Your task to perform on an android device: create a new album in the google photos Image 0: 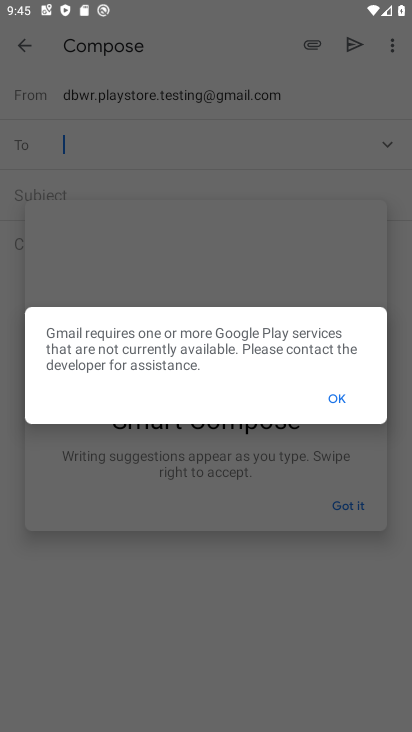
Step 0: press home button
Your task to perform on an android device: create a new album in the google photos Image 1: 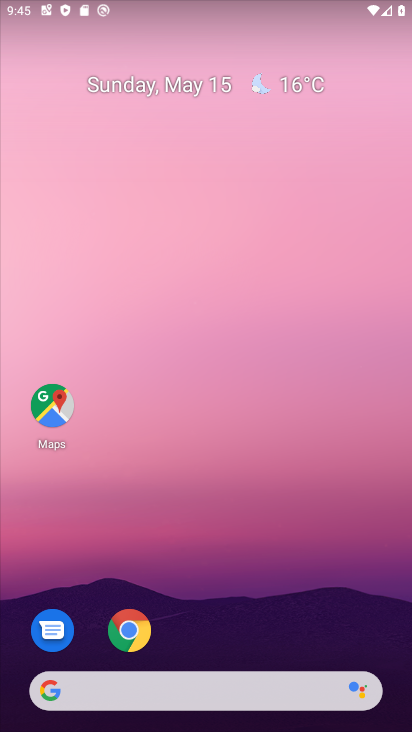
Step 1: drag from (234, 624) to (231, 172)
Your task to perform on an android device: create a new album in the google photos Image 2: 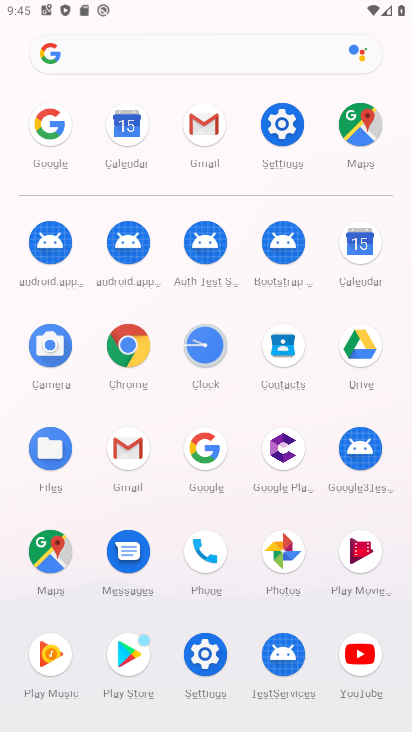
Step 2: click (279, 561)
Your task to perform on an android device: create a new album in the google photos Image 3: 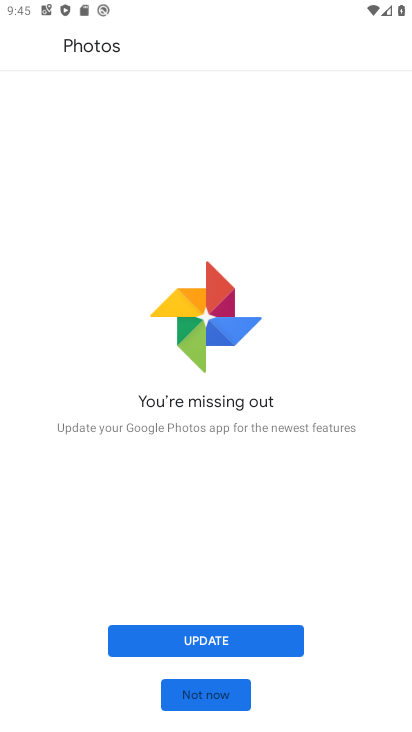
Step 3: click (217, 684)
Your task to perform on an android device: create a new album in the google photos Image 4: 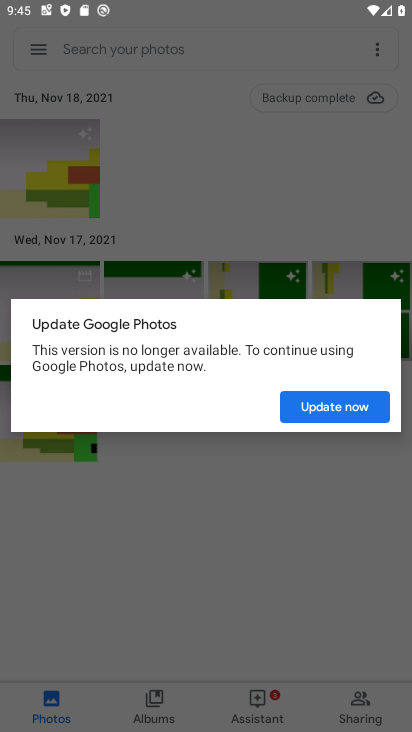
Step 4: click (297, 409)
Your task to perform on an android device: create a new album in the google photos Image 5: 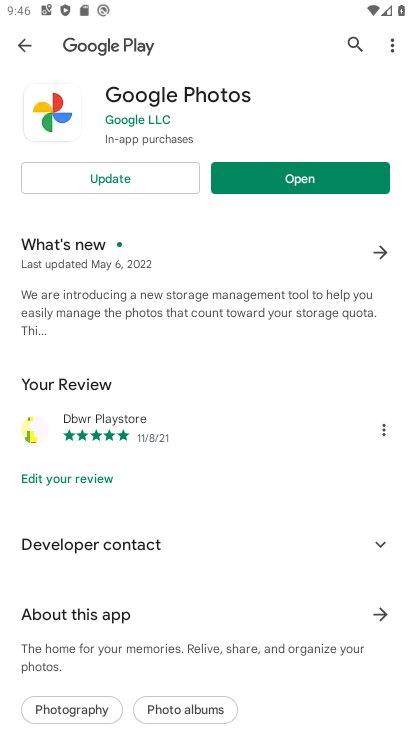
Step 5: click (306, 172)
Your task to perform on an android device: create a new album in the google photos Image 6: 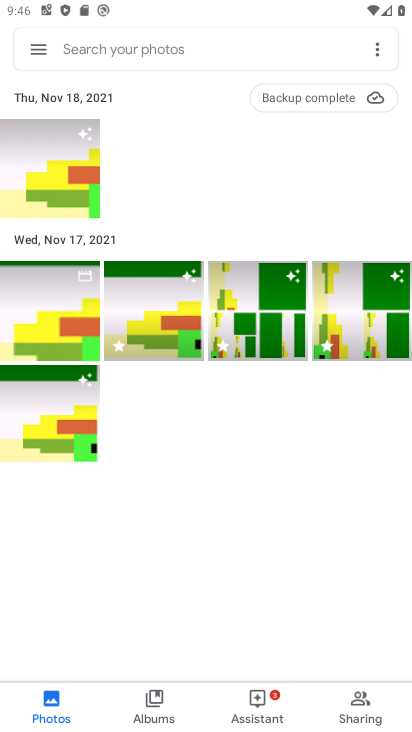
Step 6: click (374, 45)
Your task to perform on an android device: create a new album in the google photos Image 7: 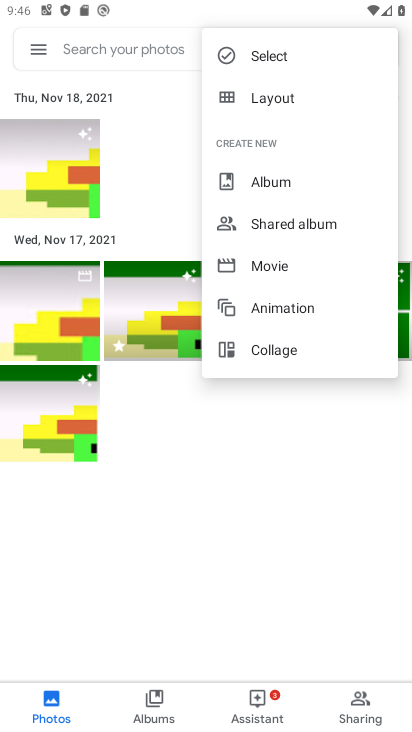
Step 7: click (245, 171)
Your task to perform on an android device: create a new album in the google photos Image 8: 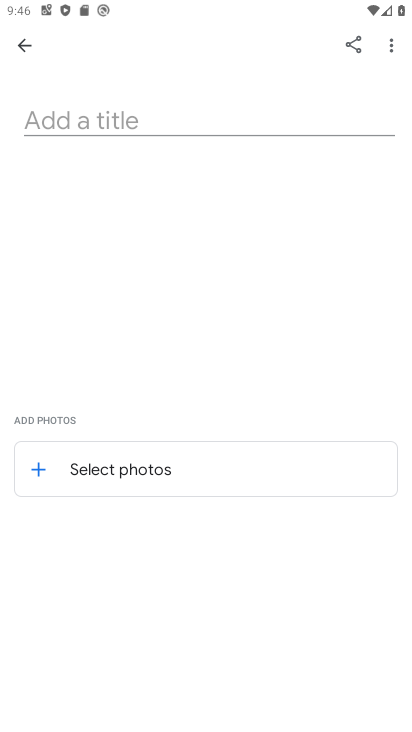
Step 8: click (146, 119)
Your task to perform on an android device: create a new album in the google photos Image 9: 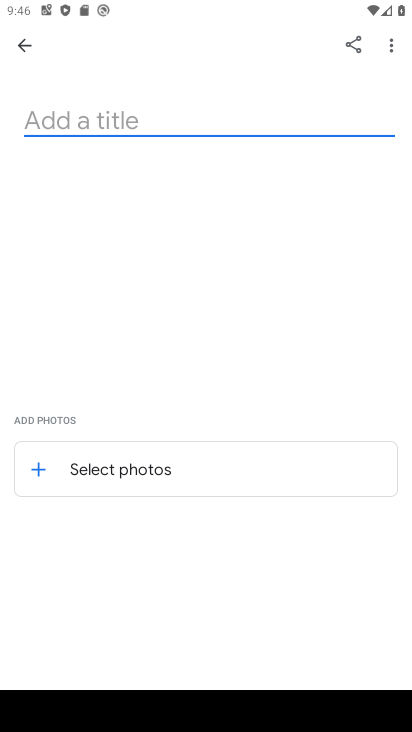
Step 9: type "fgngf"
Your task to perform on an android device: create a new album in the google photos Image 10: 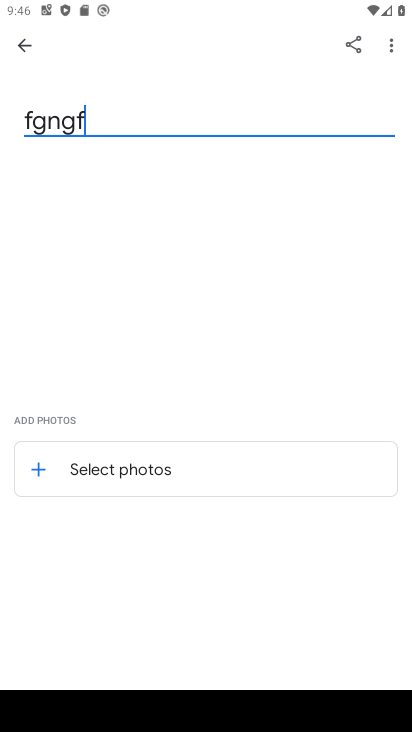
Step 10: click (41, 461)
Your task to perform on an android device: create a new album in the google photos Image 11: 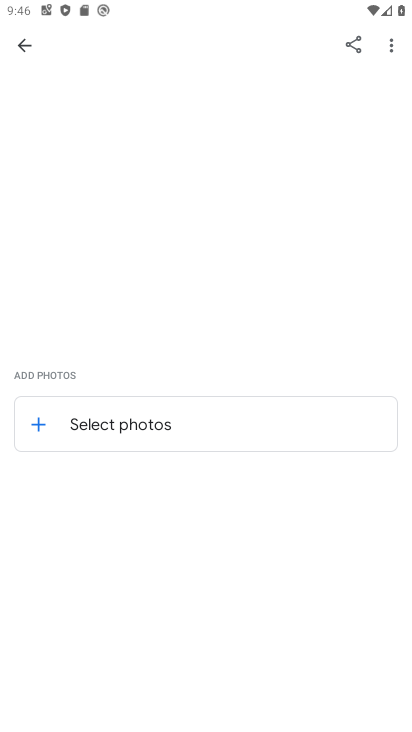
Step 11: click (41, 413)
Your task to perform on an android device: create a new album in the google photos Image 12: 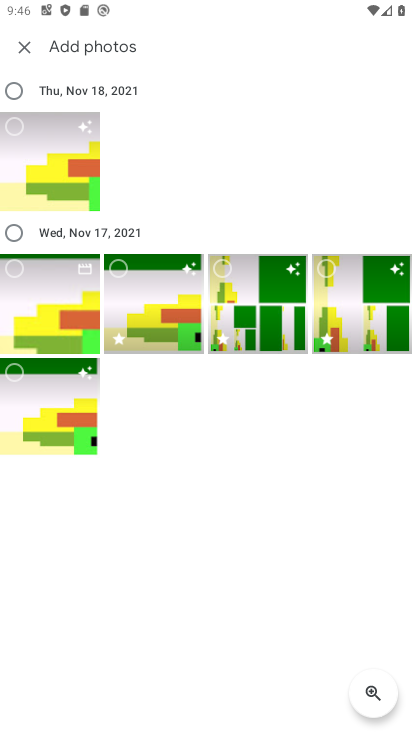
Step 12: click (136, 281)
Your task to perform on an android device: create a new album in the google photos Image 13: 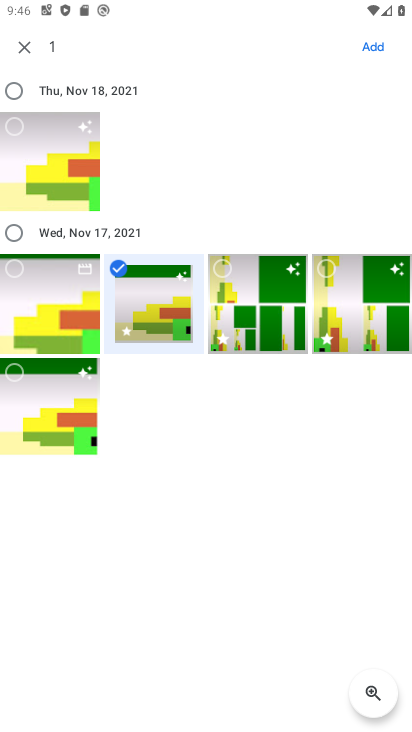
Step 13: click (363, 46)
Your task to perform on an android device: create a new album in the google photos Image 14: 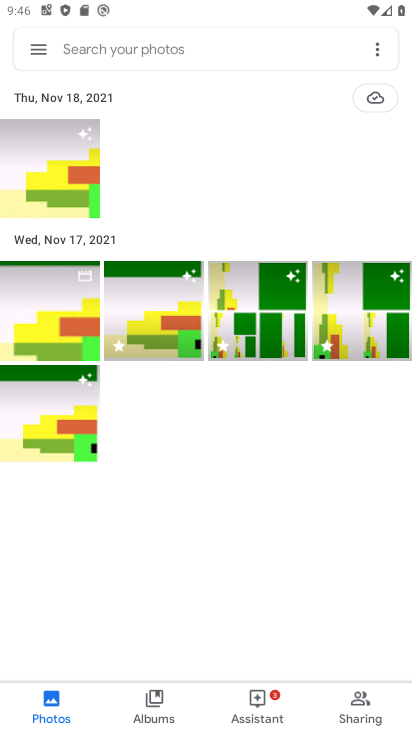
Step 14: click (382, 43)
Your task to perform on an android device: create a new album in the google photos Image 15: 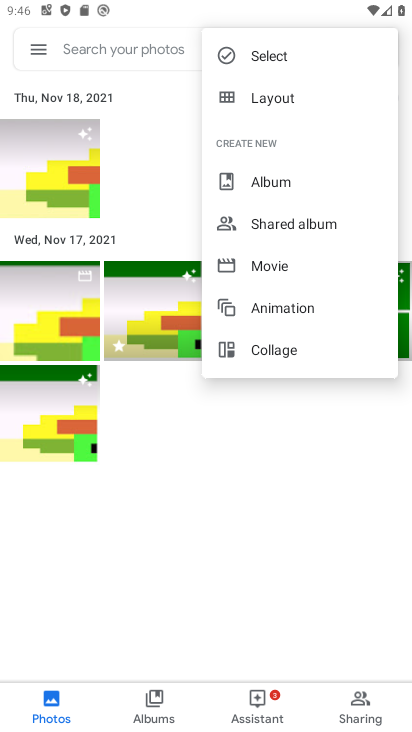
Step 15: click (271, 176)
Your task to perform on an android device: create a new album in the google photos Image 16: 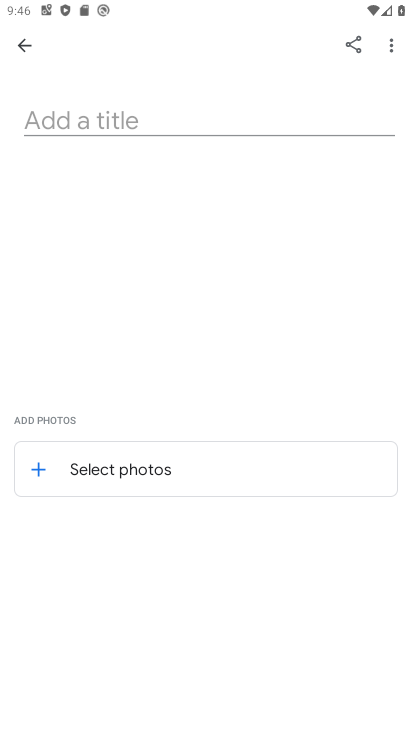
Step 16: click (132, 119)
Your task to perform on an android device: create a new album in the google photos Image 17: 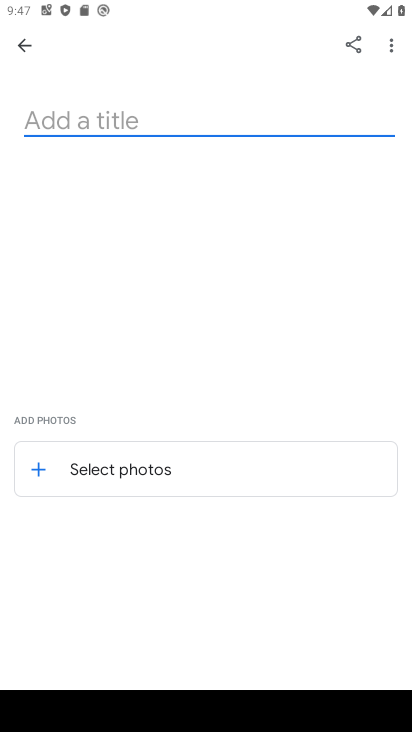
Step 17: type "fgjgn"
Your task to perform on an android device: create a new album in the google photos Image 18: 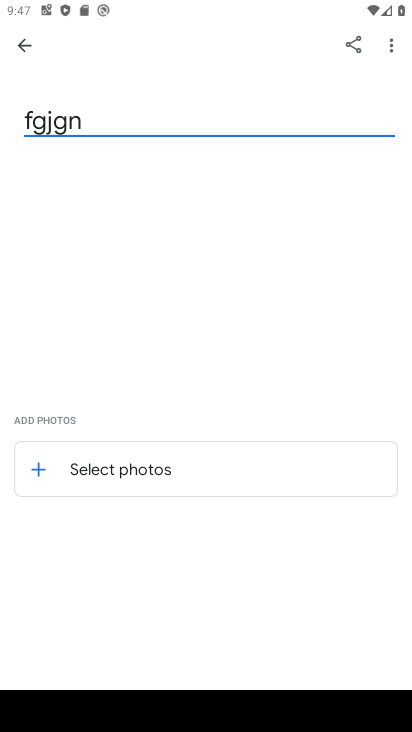
Step 18: click (113, 467)
Your task to perform on an android device: create a new album in the google photos Image 19: 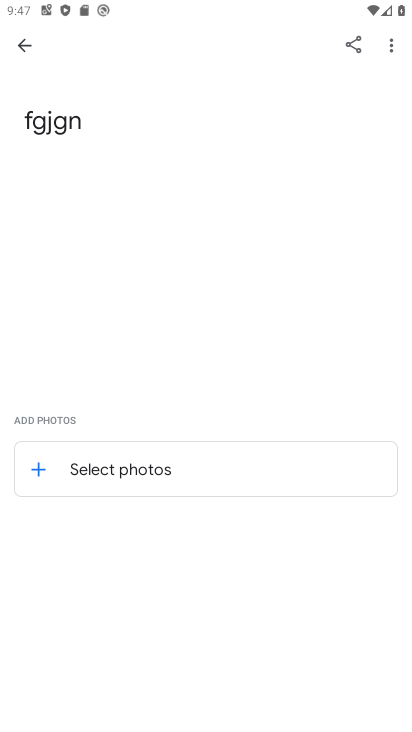
Step 19: click (45, 470)
Your task to perform on an android device: create a new album in the google photos Image 20: 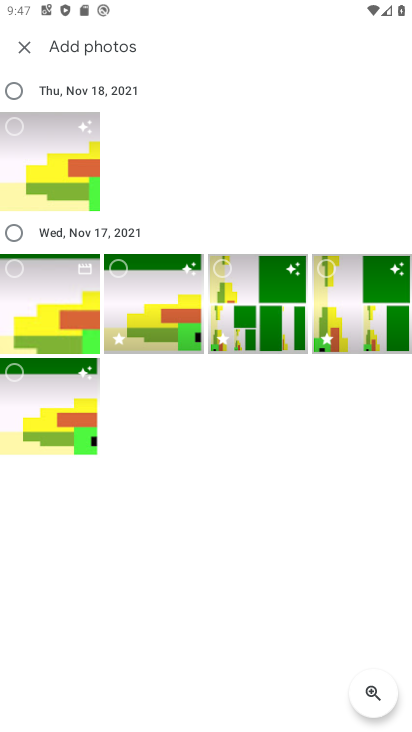
Step 20: click (72, 170)
Your task to perform on an android device: create a new album in the google photos Image 21: 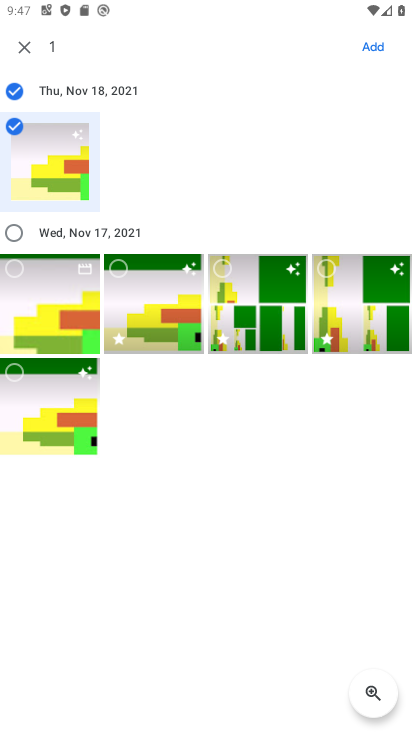
Step 21: click (369, 48)
Your task to perform on an android device: create a new album in the google photos Image 22: 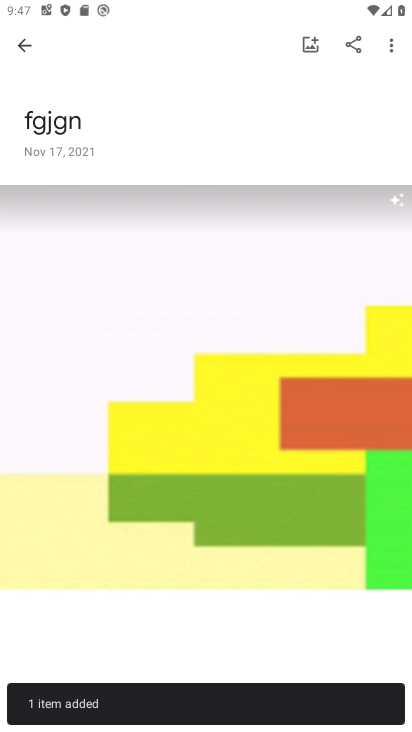
Step 22: task complete